Your task to perform on an android device: open app "Move to iOS" Image 0: 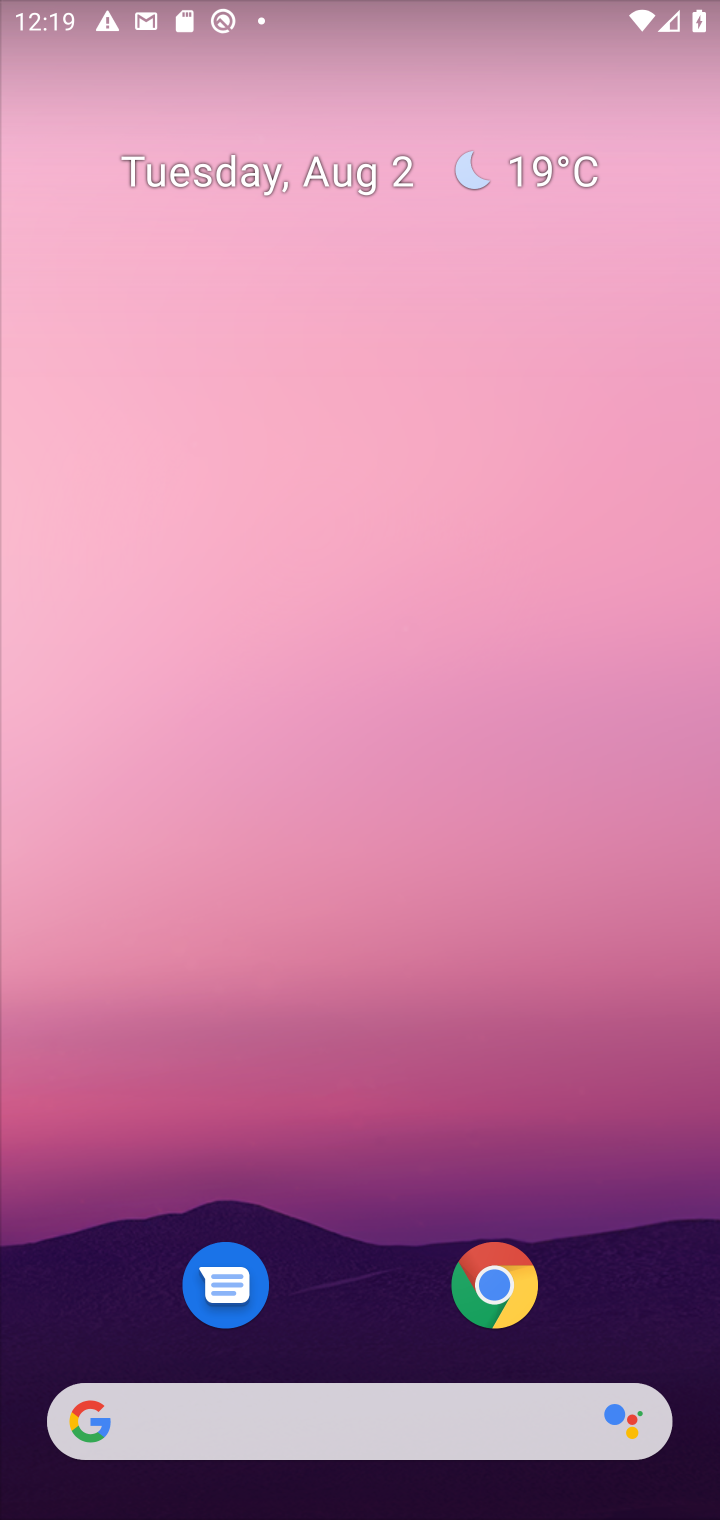
Step 0: drag from (386, 1317) to (282, 347)
Your task to perform on an android device: open app "Move to iOS" Image 1: 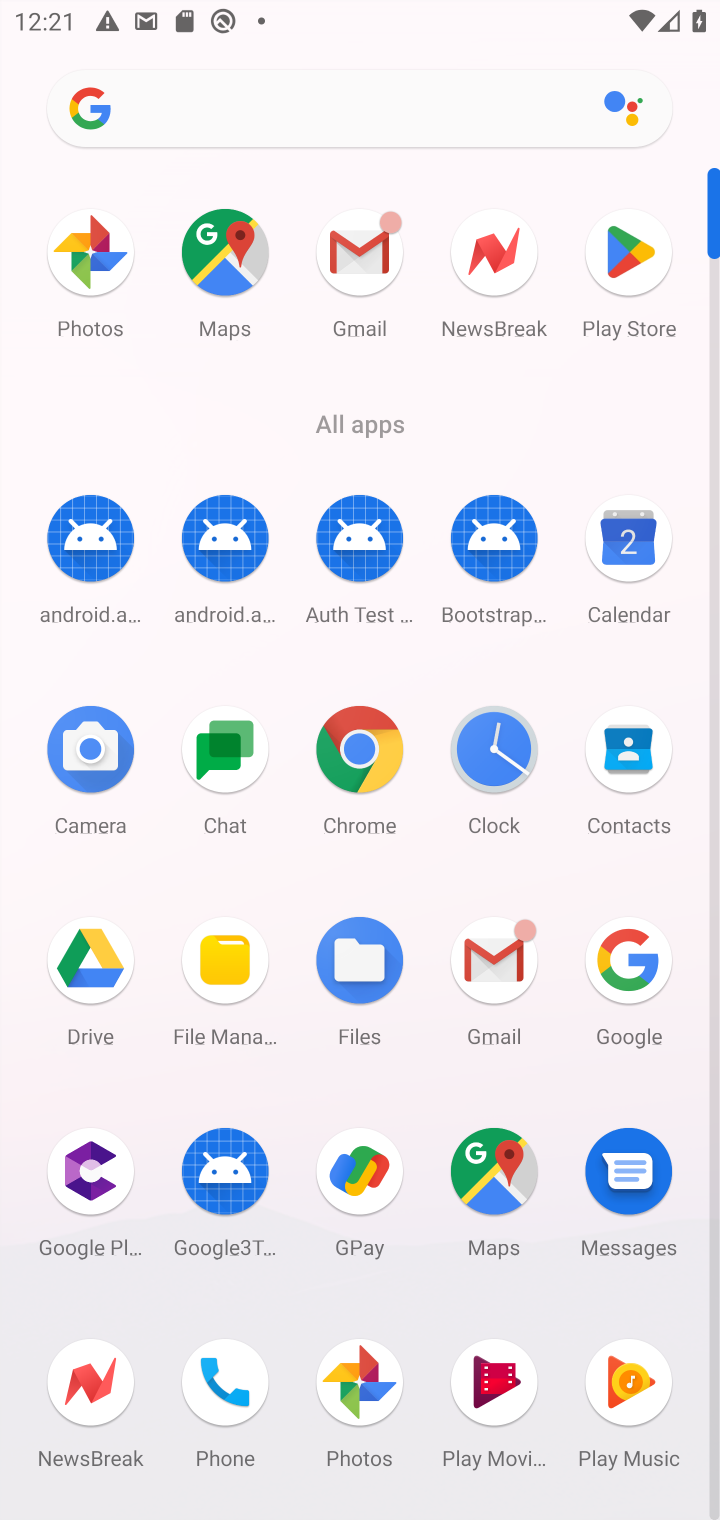
Step 1: click (641, 280)
Your task to perform on an android device: open app "Move to iOS" Image 2: 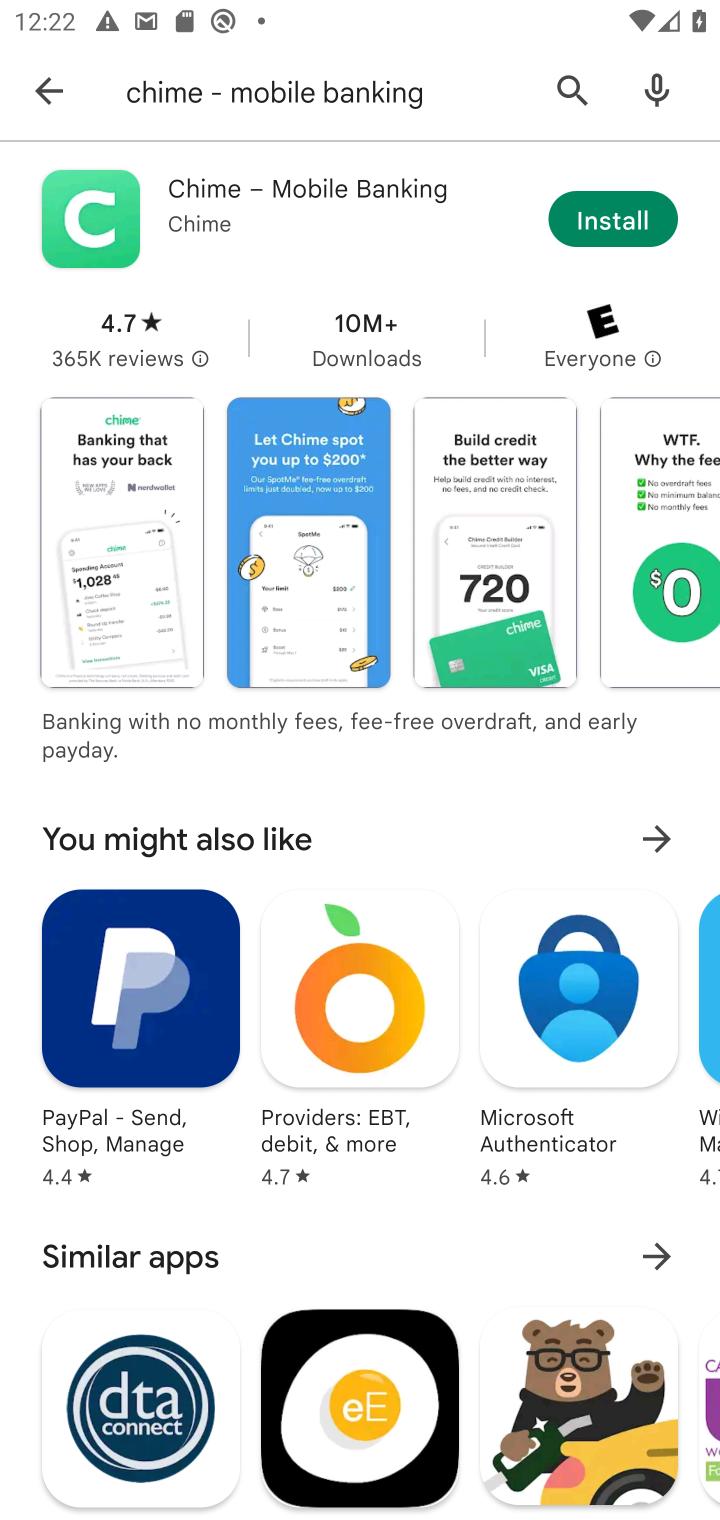
Step 2: click (569, 83)
Your task to perform on an android device: open app "Move to iOS" Image 3: 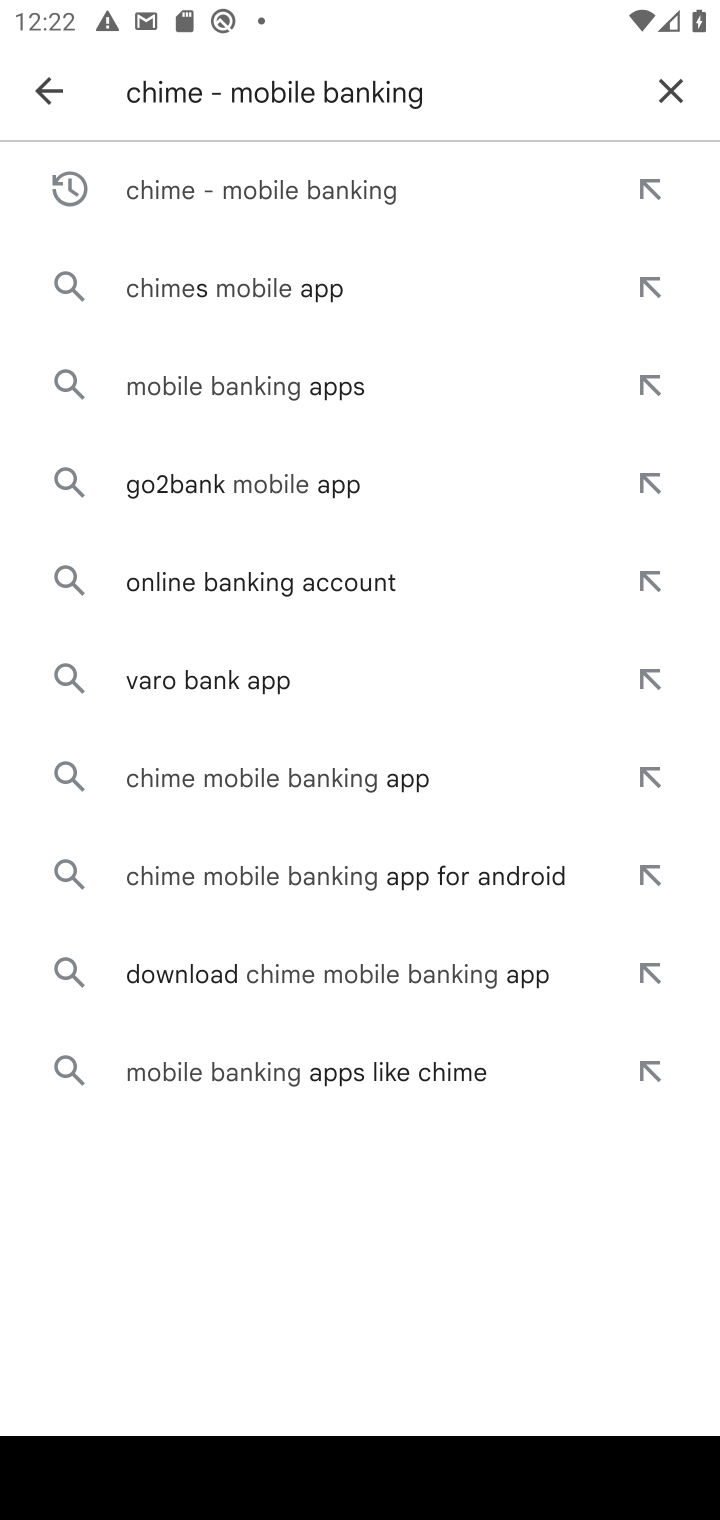
Step 3: click (675, 81)
Your task to perform on an android device: open app "Move to iOS" Image 4: 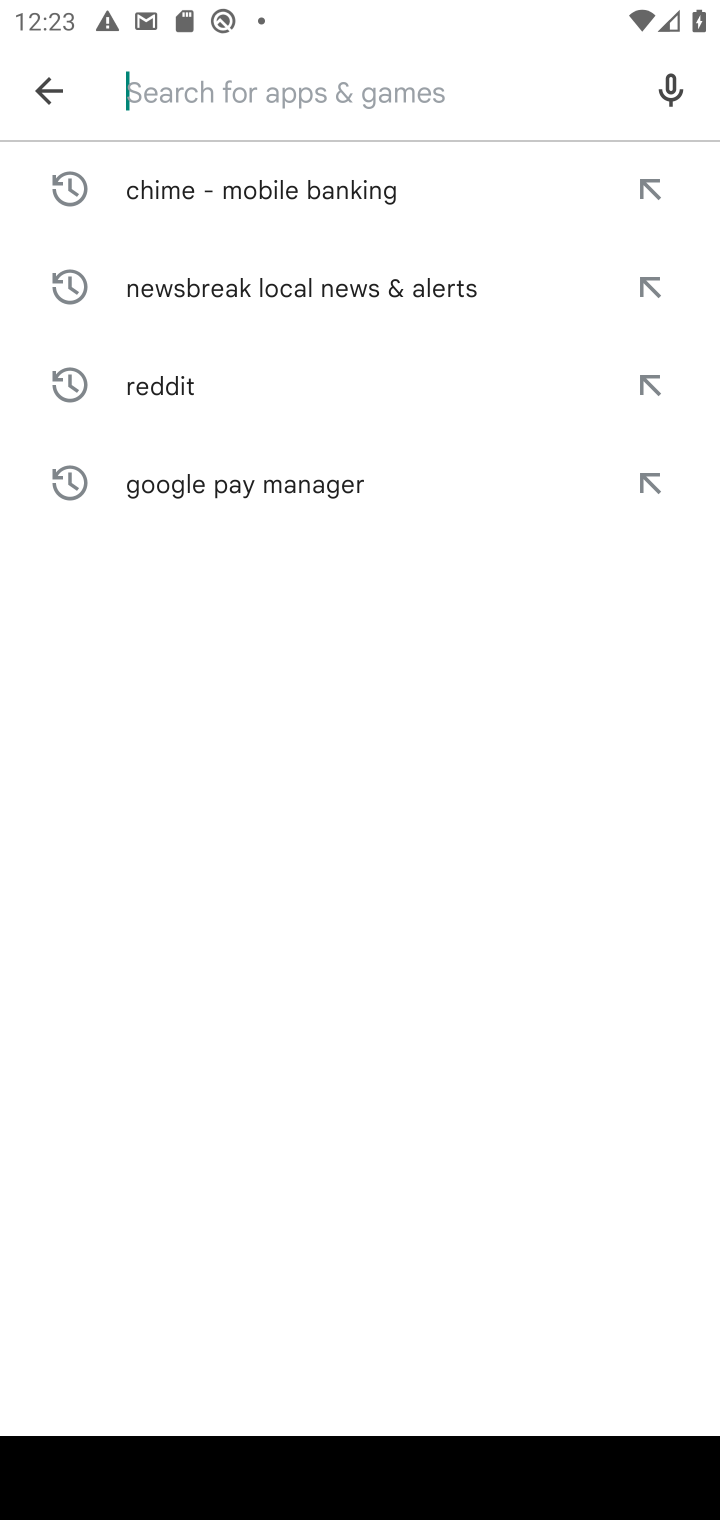
Step 4: type "Move to iOS"
Your task to perform on an android device: open app "Move to iOS" Image 5: 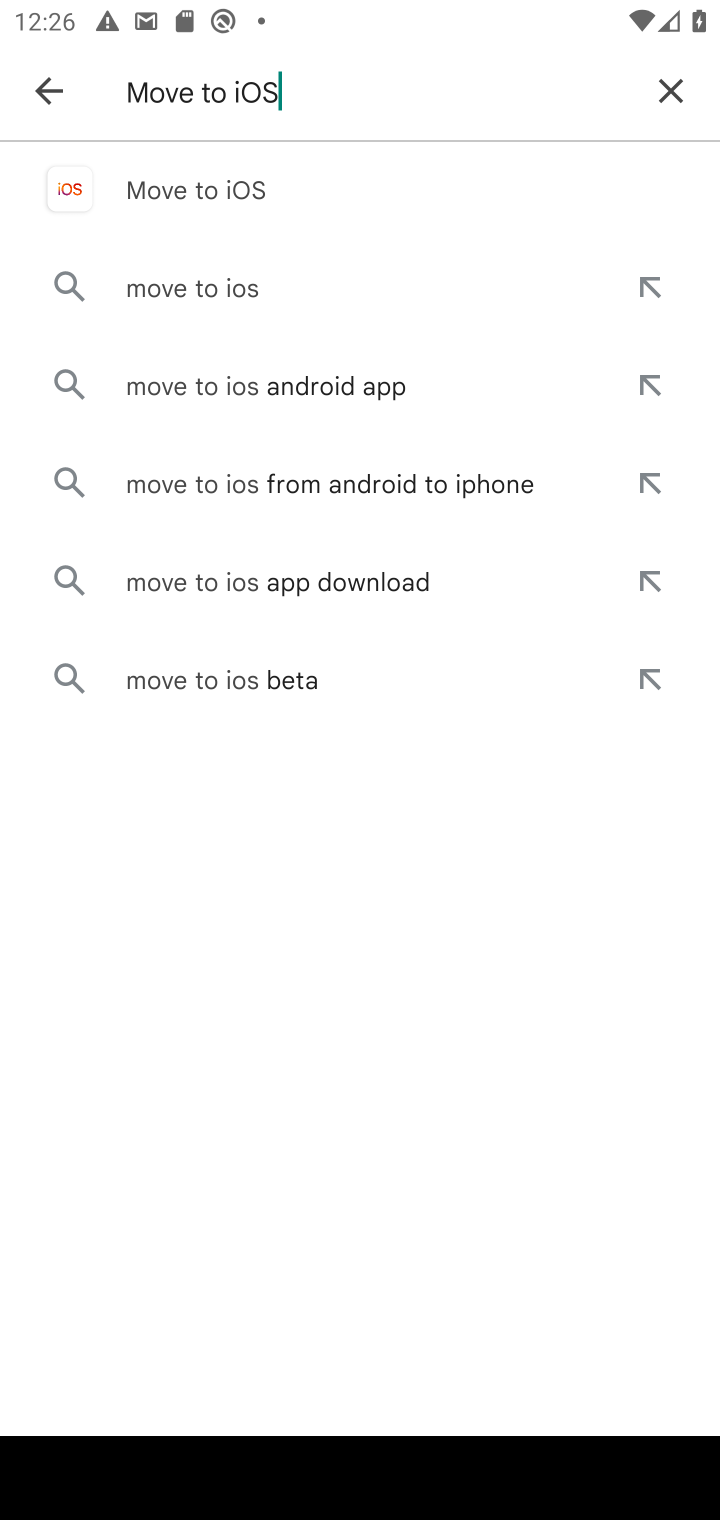
Step 5: click (165, 188)
Your task to perform on an android device: open app "Move to iOS" Image 6: 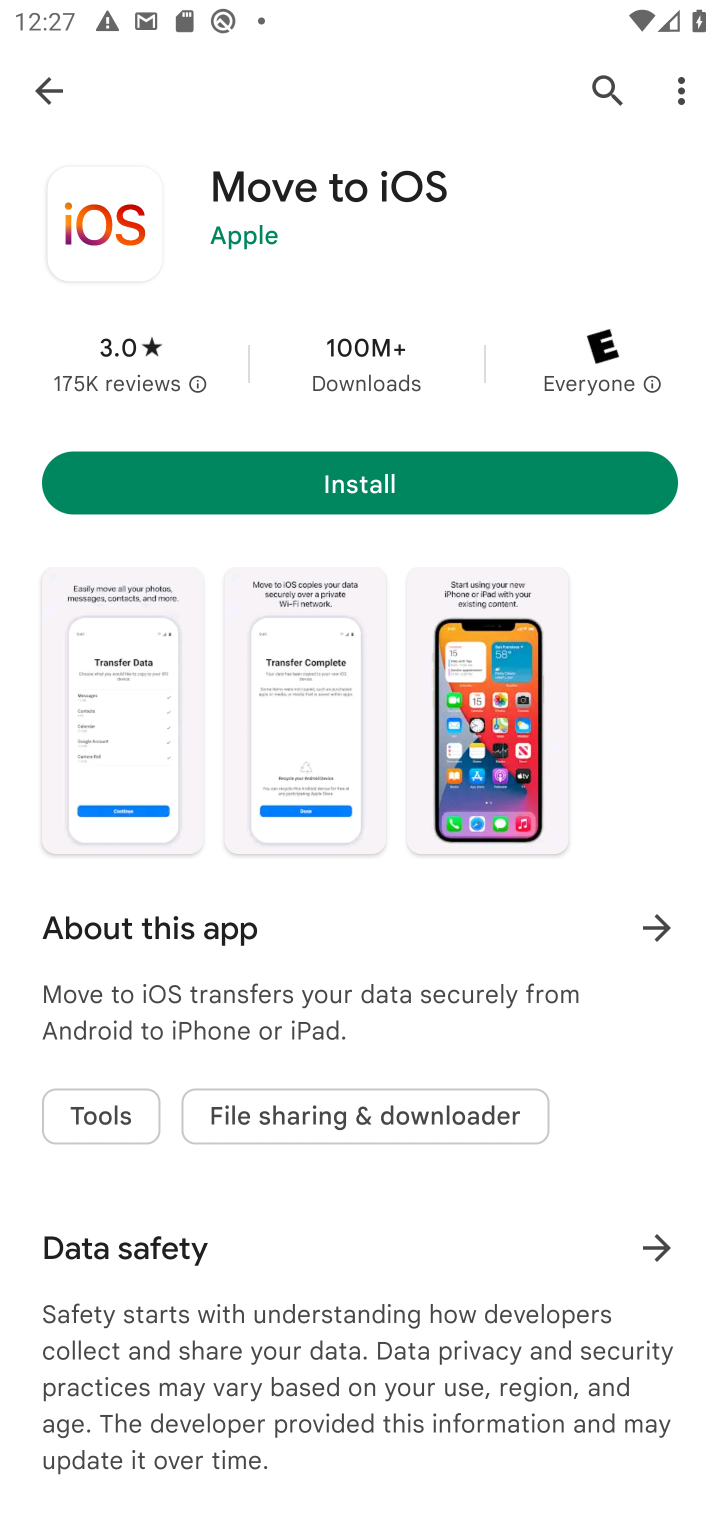
Step 6: task complete